Your task to perform on an android device: check out phone information Image 0: 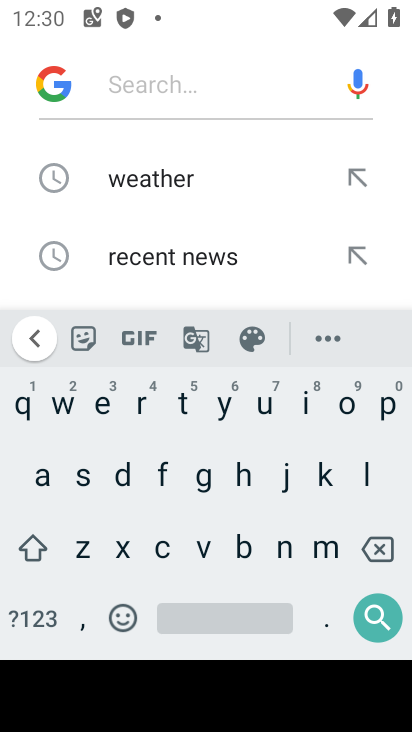
Step 0: press back button
Your task to perform on an android device: check out phone information Image 1: 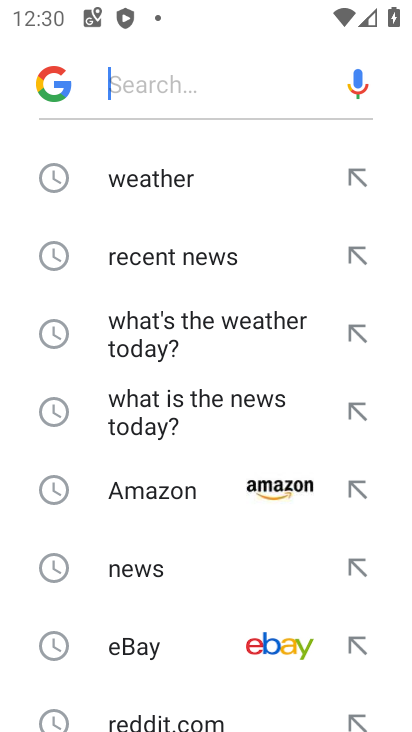
Step 1: press back button
Your task to perform on an android device: check out phone information Image 2: 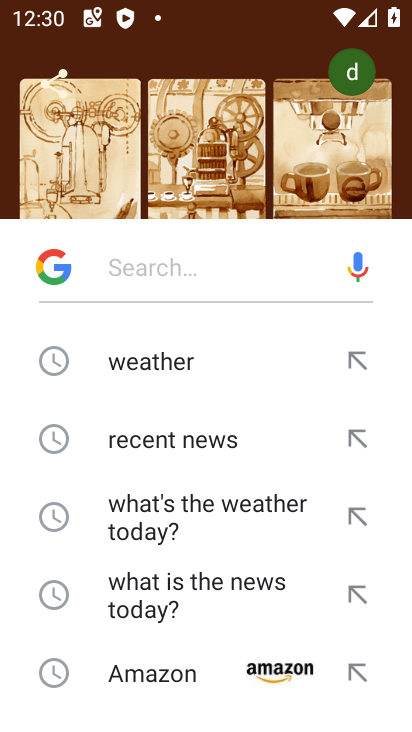
Step 2: press back button
Your task to perform on an android device: check out phone information Image 3: 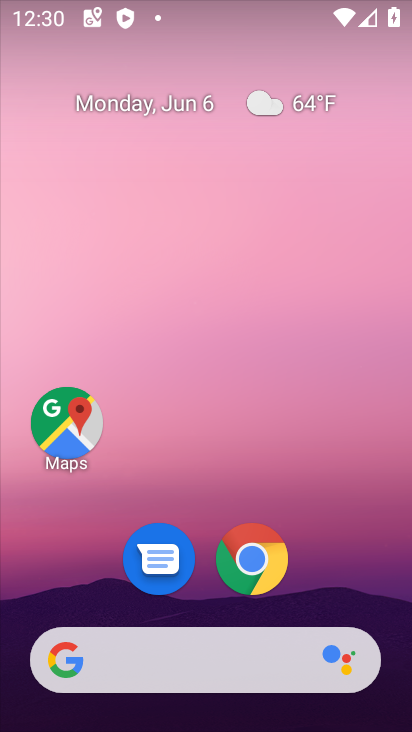
Step 3: drag from (290, 692) to (365, 199)
Your task to perform on an android device: check out phone information Image 4: 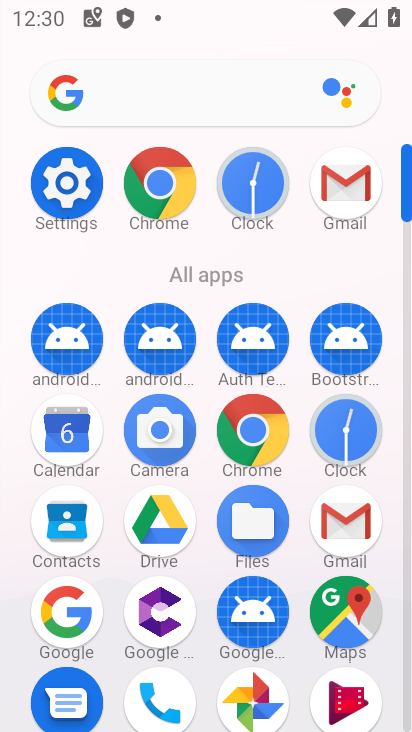
Step 4: click (76, 166)
Your task to perform on an android device: check out phone information Image 5: 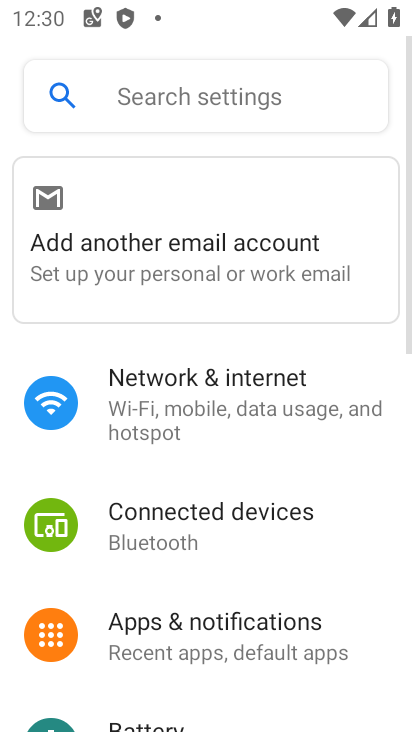
Step 5: click (159, 107)
Your task to perform on an android device: check out phone information Image 6: 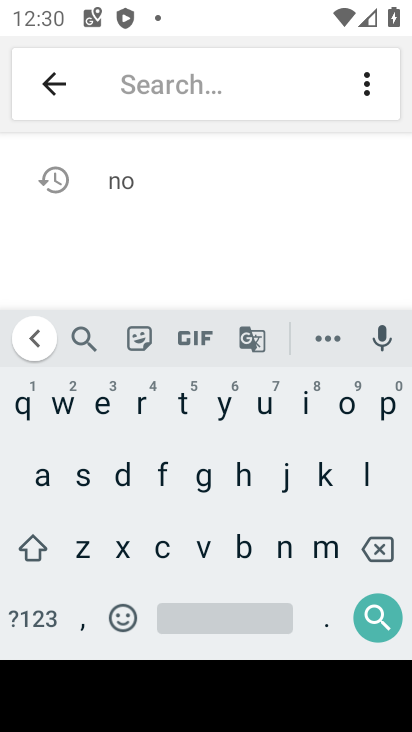
Step 6: click (29, 469)
Your task to perform on an android device: check out phone information Image 7: 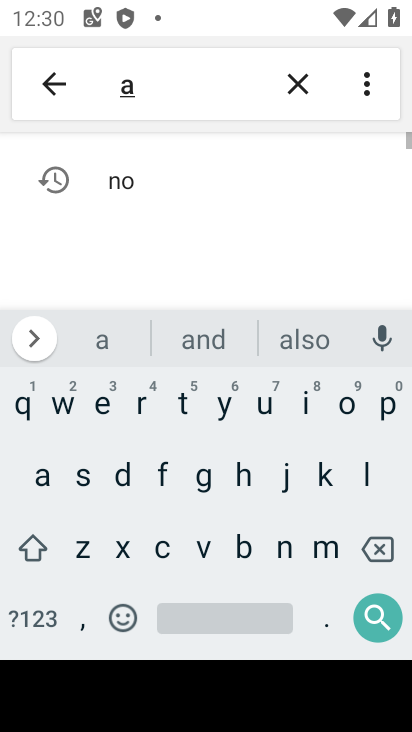
Step 7: click (240, 552)
Your task to perform on an android device: check out phone information Image 8: 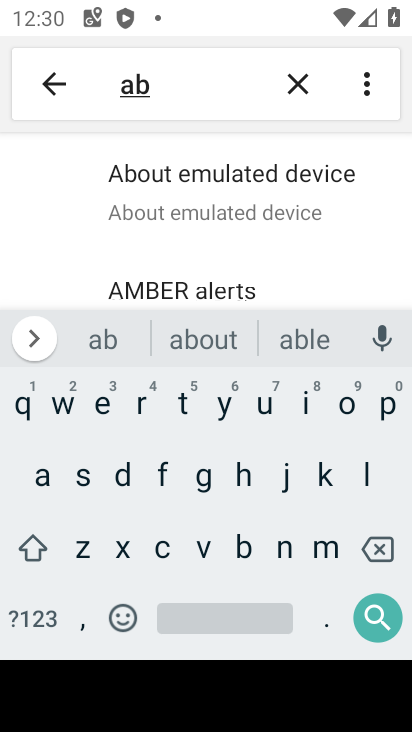
Step 8: click (172, 175)
Your task to perform on an android device: check out phone information Image 9: 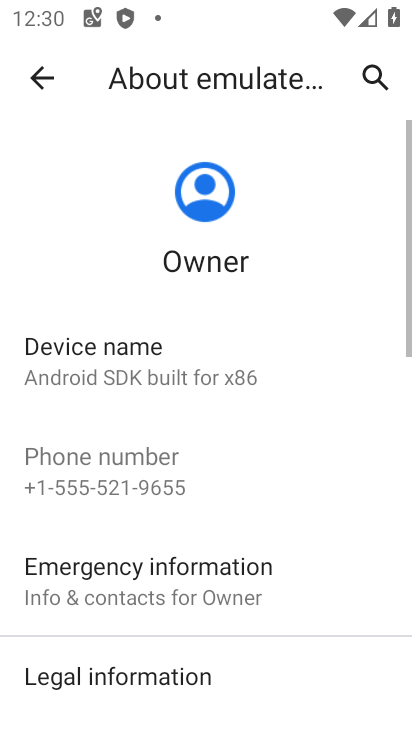
Step 9: task complete